Your task to perform on an android device: make emails show in primary in the gmail app Image 0: 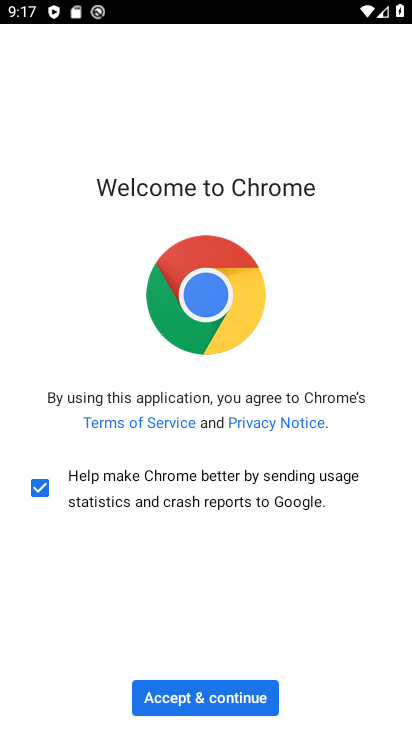
Step 0: press home button
Your task to perform on an android device: make emails show in primary in the gmail app Image 1: 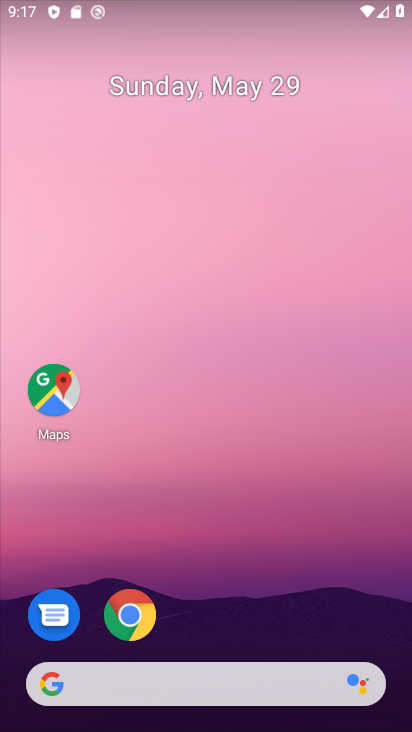
Step 1: drag from (217, 645) to (77, 52)
Your task to perform on an android device: make emails show in primary in the gmail app Image 2: 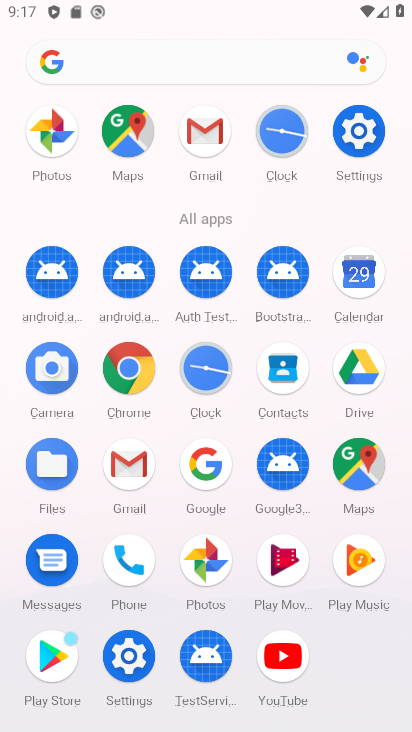
Step 2: click (86, 473)
Your task to perform on an android device: make emails show in primary in the gmail app Image 3: 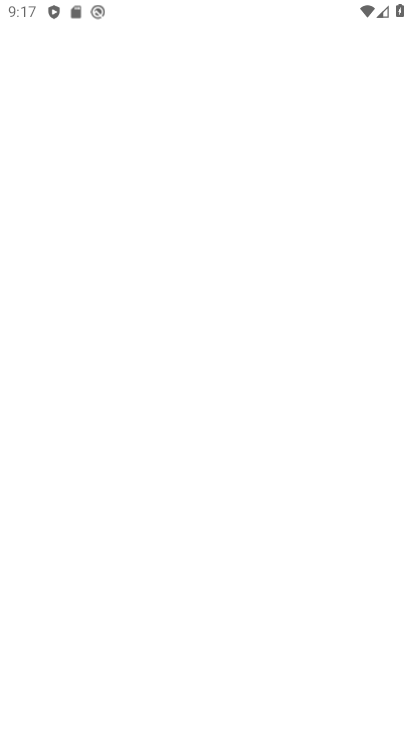
Step 3: press back button
Your task to perform on an android device: make emails show in primary in the gmail app Image 4: 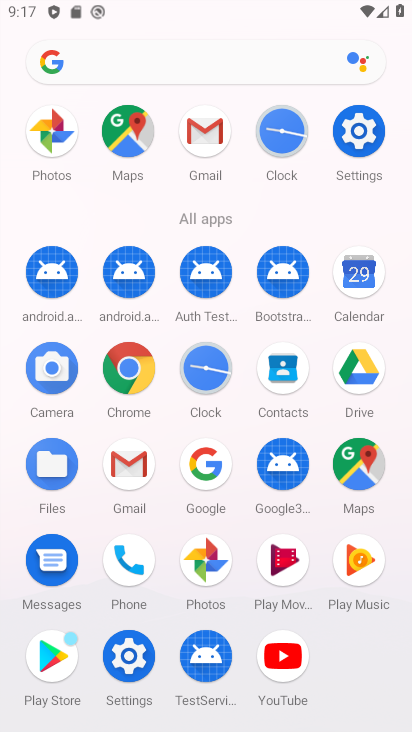
Step 4: click (137, 468)
Your task to perform on an android device: make emails show in primary in the gmail app Image 5: 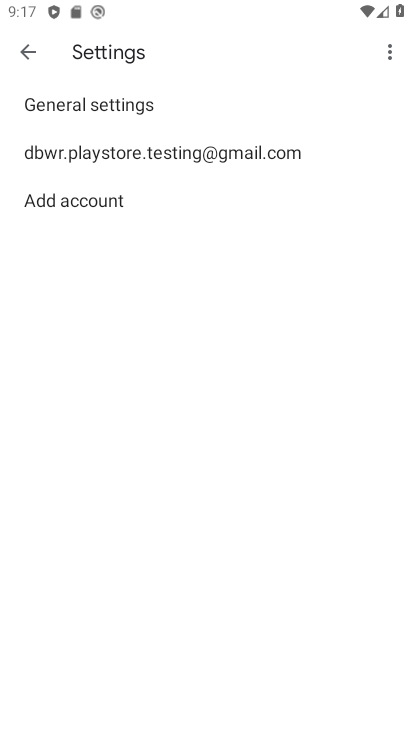
Step 5: click (32, 46)
Your task to perform on an android device: make emails show in primary in the gmail app Image 6: 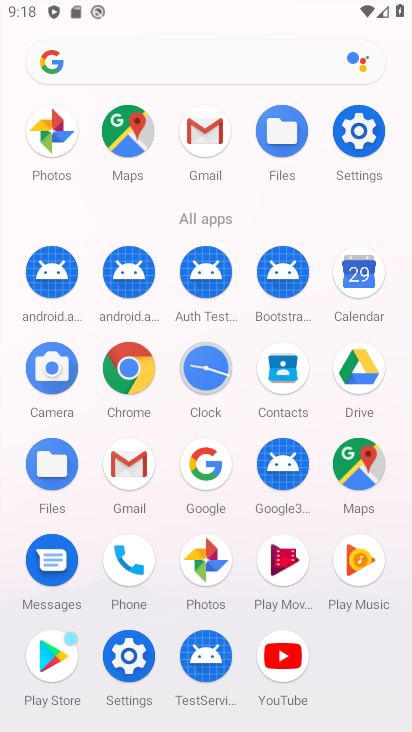
Step 6: click (136, 478)
Your task to perform on an android device: make emails show in primary in the gmail app Image 7: 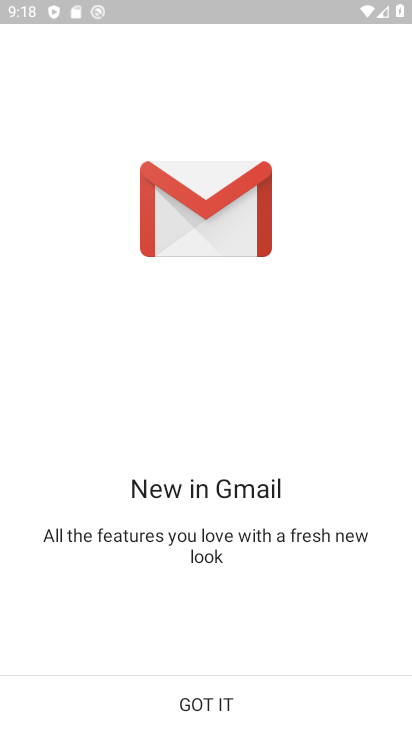
Step 7: click (234, 697)
Your task to perform on an android device: make emails show in primary in the gmail app Image 8: 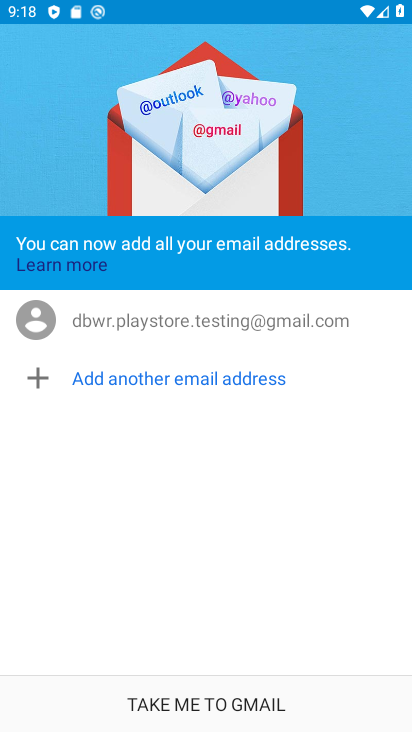
Step 8: click (213, 709)
Your task to perform on an android device: make emails show in primary in the gmail app Image 9: 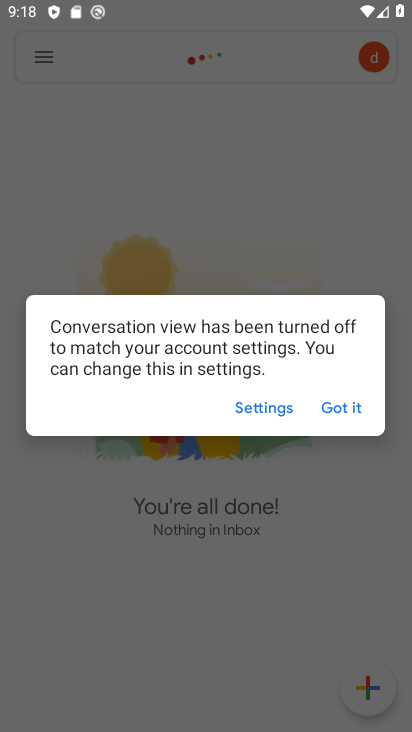
Step 9: click (349, 414)
Your task to perform on an android device: make emails show in primary in the gmail app Image 10: 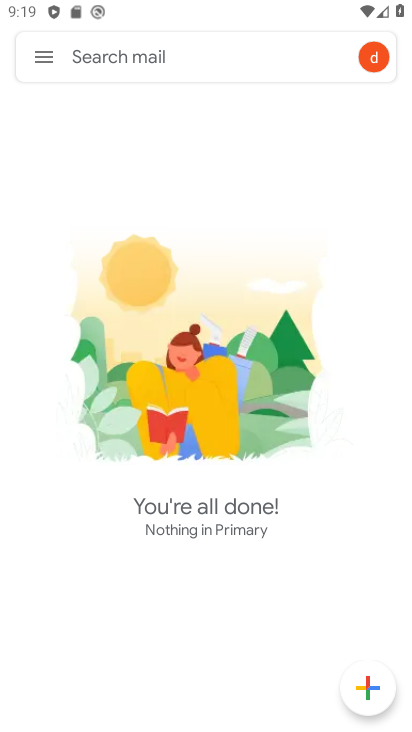
Step 10: click (38, 50)
Your task to perform on an android device: make emails show in primary in the gmail app Image 11: 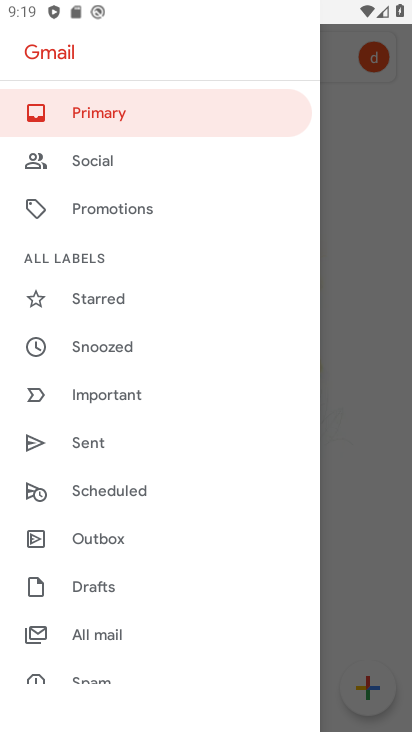
Step 11: click (76, 111)
Your task to perform on an android device: make emails show in primary in the gmail app Image 12: 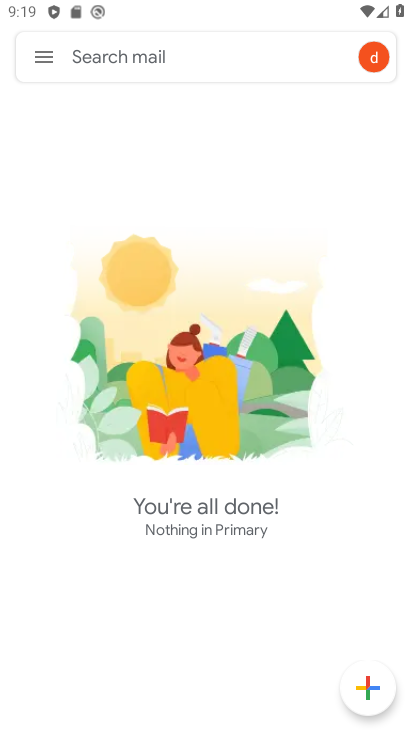
Step 12: task complete